Your task to perform on an android device: star an email in the gmail app Image 0: 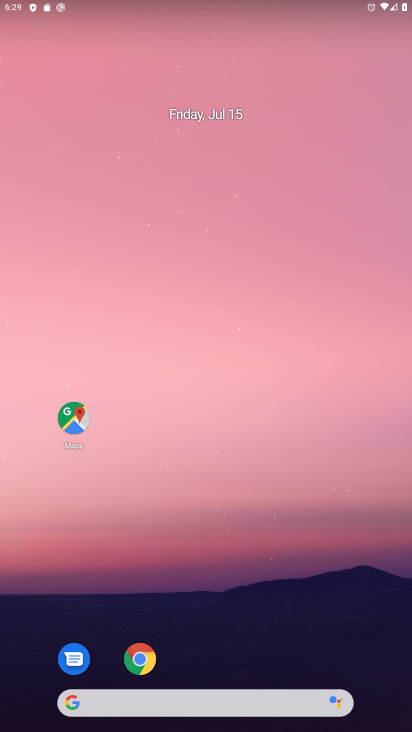
Step 0: drag from (393, 662) to (357, 153)
Your task to perform on an android device: star an email in the gmail app Image 1: 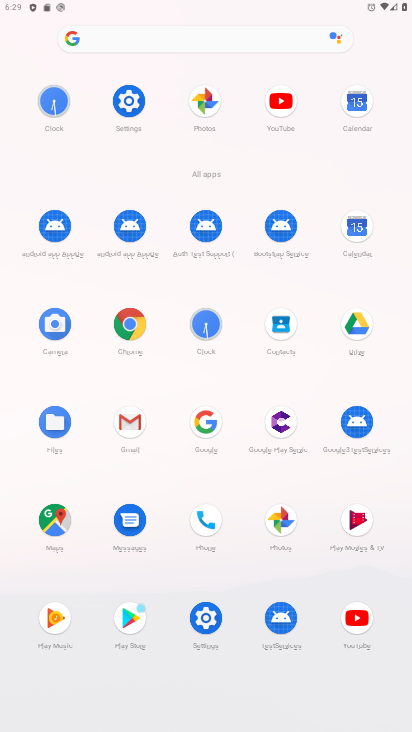
Step 1: click (129, 422)
Your task to perform on an android device: star an email in the gmail app Image 2: 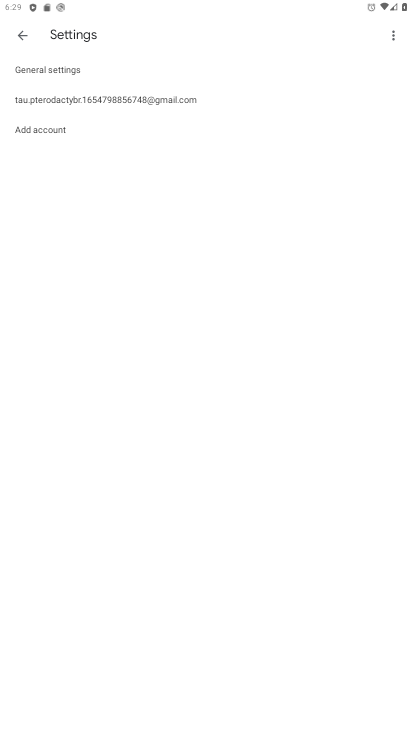
Step 2: press back button
Your task to perform on an android device: star an email in the gmail app Image 3: 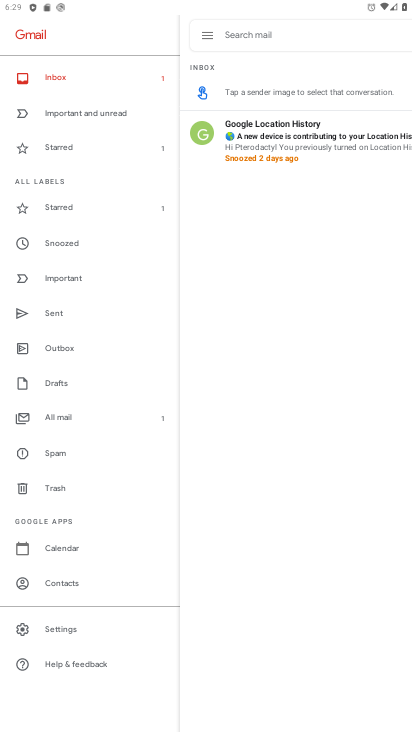
Step 3: click (50, 414)
Your task to perform on an android device: star an email in the gmail app Image 4: 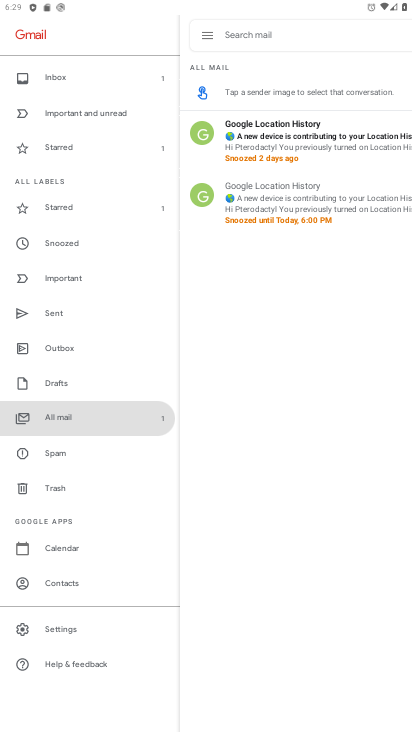
Step 4: click (306, 138)
Your task to perform on an android device: star an email in the gmail app Image 5: 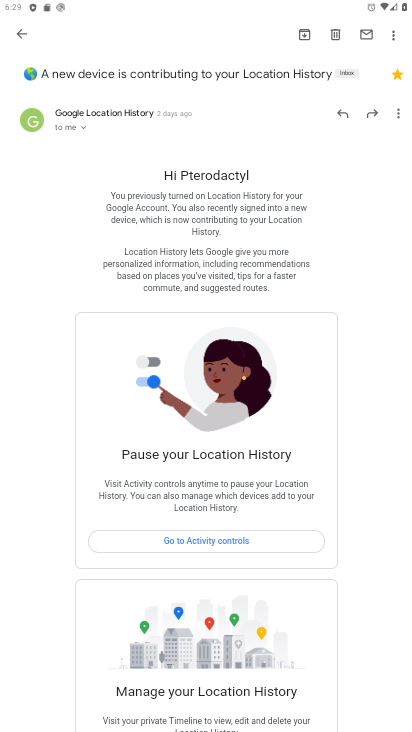
Step 5: task complete